Your task to perform on an android device: check the backup settings in the google photos Image 0: 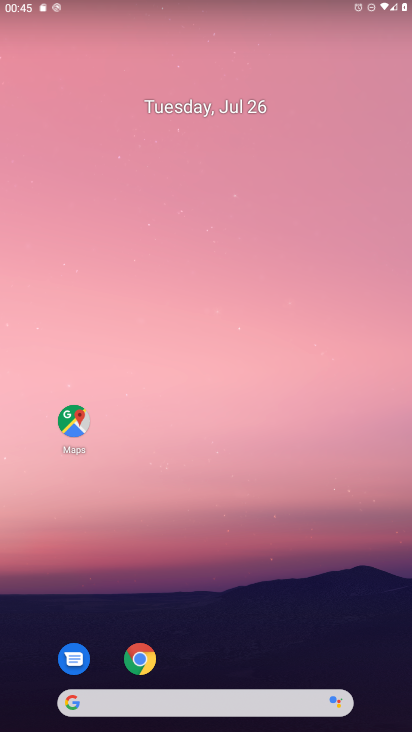
Step 0: drag from (309, 575) to (260, 149)
Your task to perform on an android device: check the backup settings in the google photos Image 1: 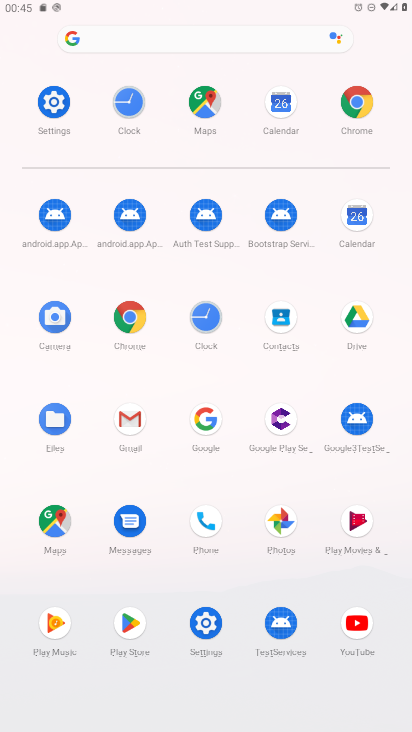
Step 1: click (287, 518)
Your task to perform on an android device: check the backup settings in the google photos Image 2: 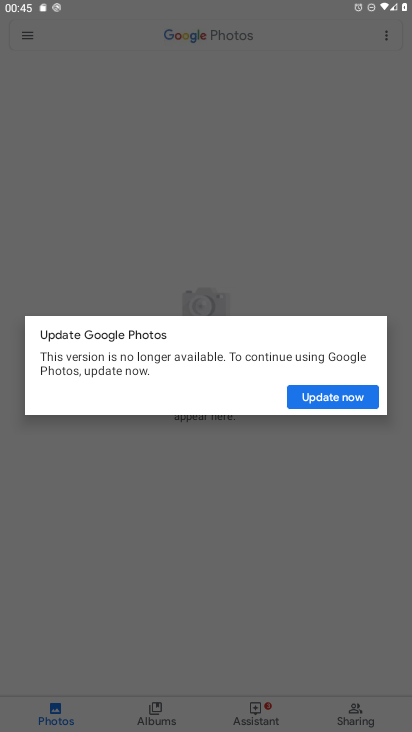
Step 2: click (355, 400)
Your task to perform on an android device: check the backup settings in the google photos Image 3: 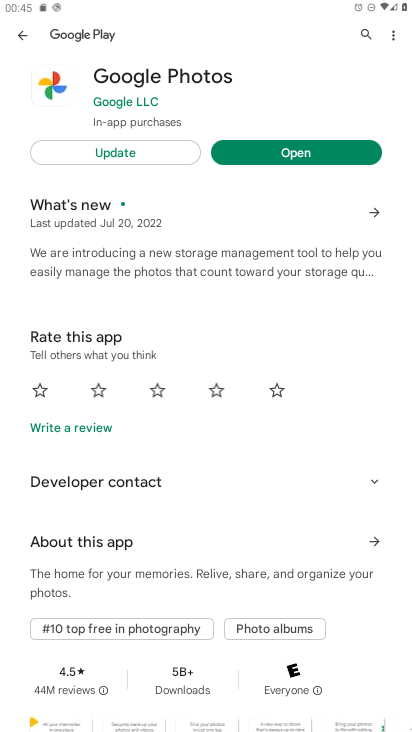
Step 3: click (155, 149)
Your task to perform on an android device: check the backup settings in the google photos Image 4: 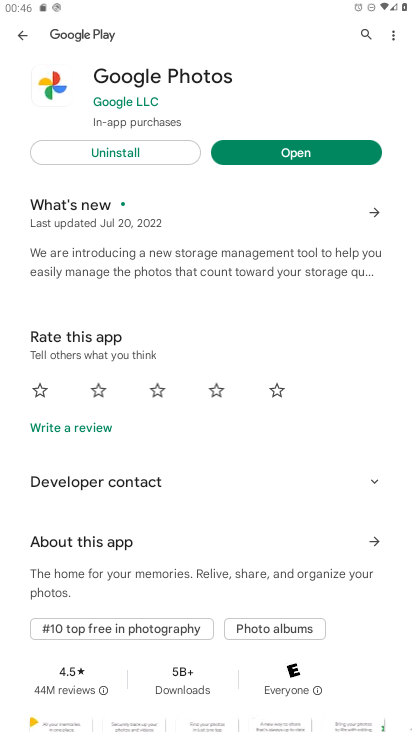
Step 4: click (248, 152)
Your task to perform on an android device: check the backup settings in the google photos Image 5: 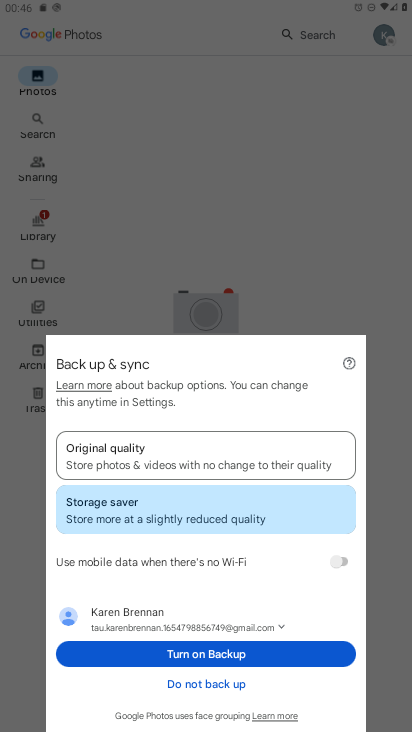
Step 5: click (224, 654)
Your task to perform on an android device: check the backup settings in the google photos Image 6: 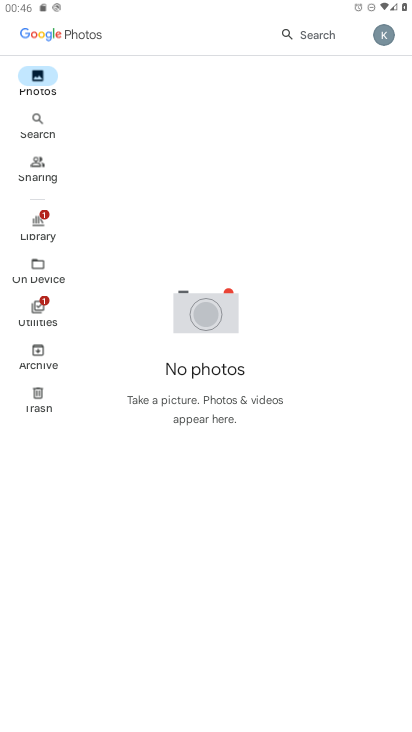
Step 6: click (382, 41)
Your task to perform on an android device: check the backup settings in the google photos Image 7: 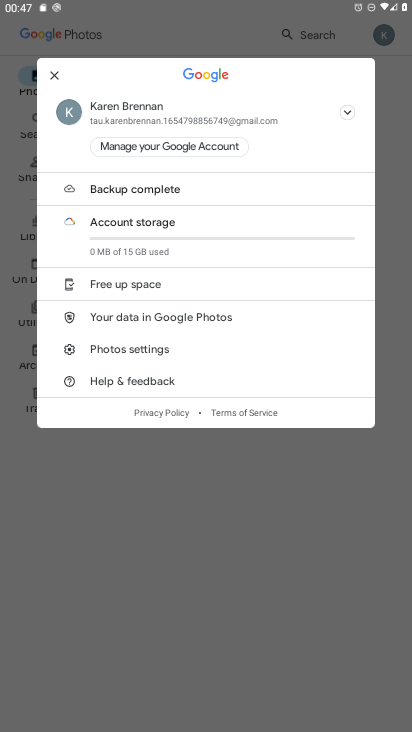
Step 7: click (153, 344)
Your task to perform on an android device: check the backup settings in the google photos Image 8: 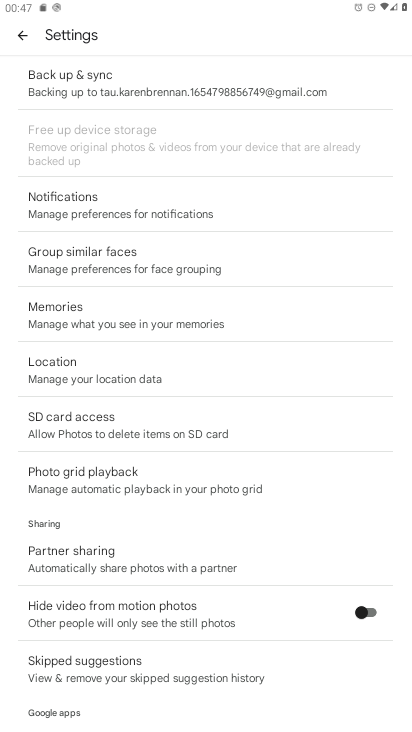
Step 8: click (76, 78)
Your task to perform on an android device: check the backup settings in the google photos Image 9: 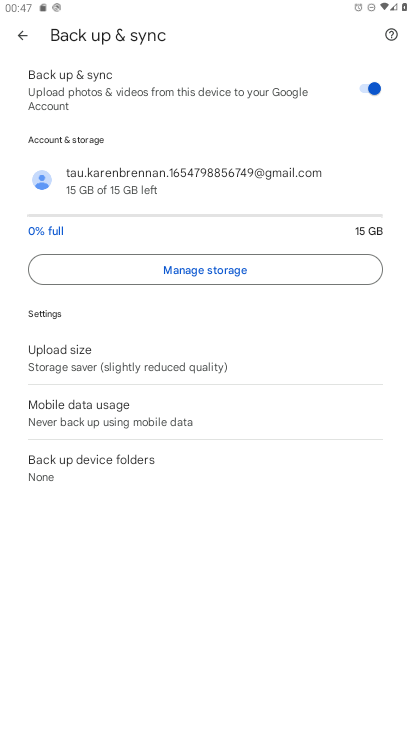
Step 9: task complete